Your task to perform on an android device: Search for the best selling books Image 0: 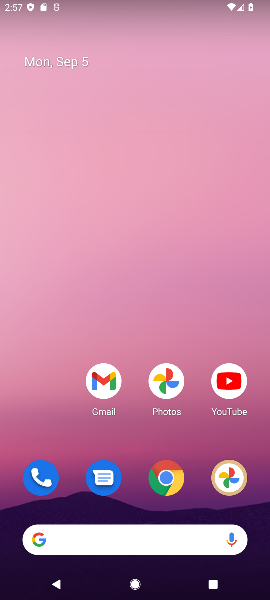
Step 0: drag from (184, 536) to (220, 37)
Your task to perform on an android device: Search for the best selling books Image 1: 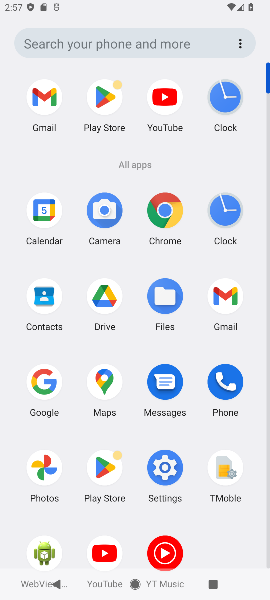
Step 1: click (171, 220)
Your task to perform on an android device: Search for the best selling books Image 2: 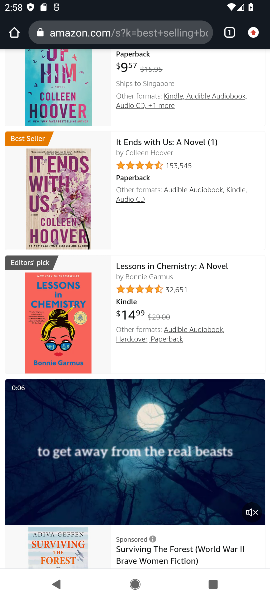
Step 2: click (176, 27)
Your task to perform on an android device: Search for the best selling books Image 3: 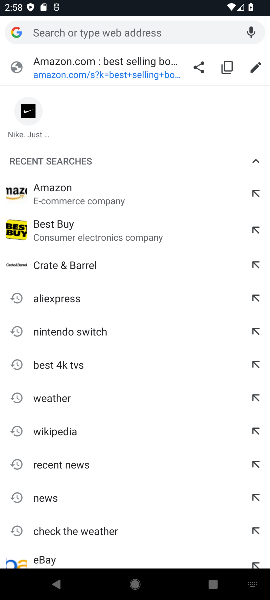
Step 3: type "best selling books"
Your task to perform on an android device: Search for the best selling books Image 4: 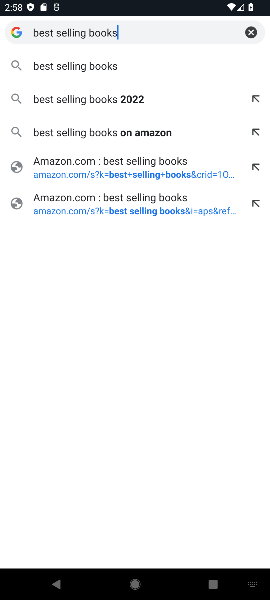
Step 4: click (120, 64)
Your task to perform on an android device: Search for the best selling books Image 5: 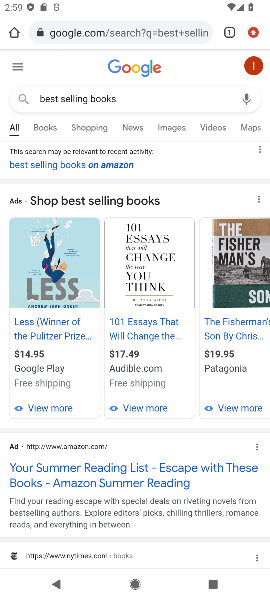
Step 5: task complete